Your task to perform on an android device: toggle javascript in the chrome app Image 0: 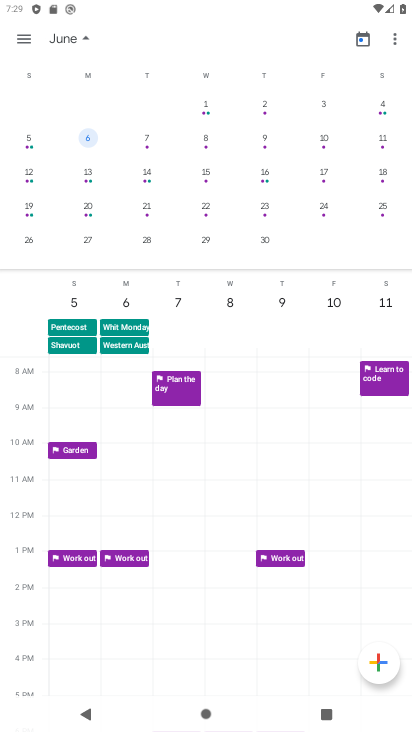
Step 0: press home button
Your task to perform on an android device: toggle javascript in the chrome app Image 1: 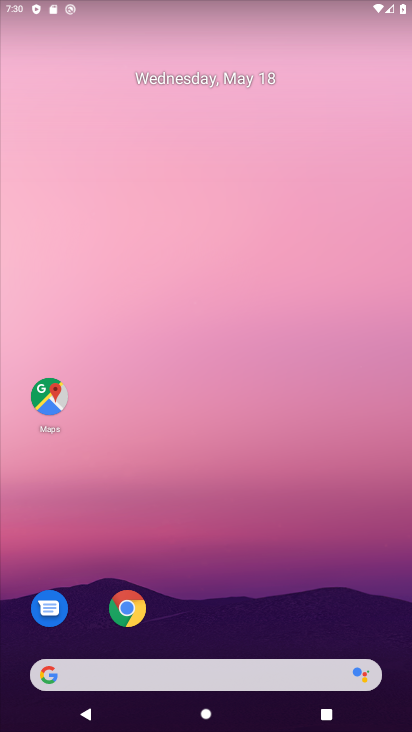
Step 1: click (135, 594)
Your task to perform on an android device: toggle javascript in the chrome app Image 2: 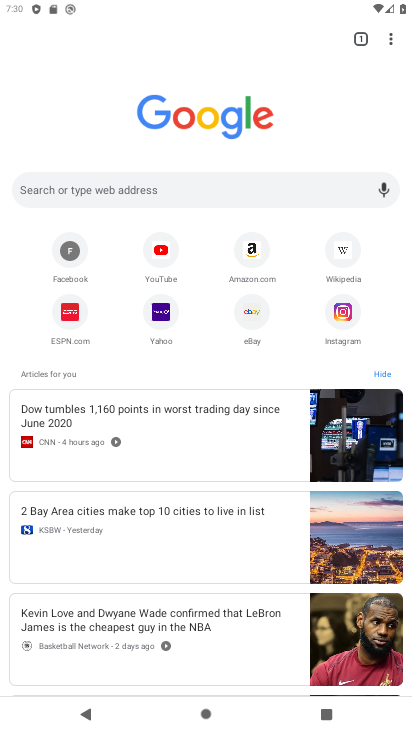
Step 2: click (402, 33)
Your task to perform on an android device: toggle javascript in the chrome app Image 3: 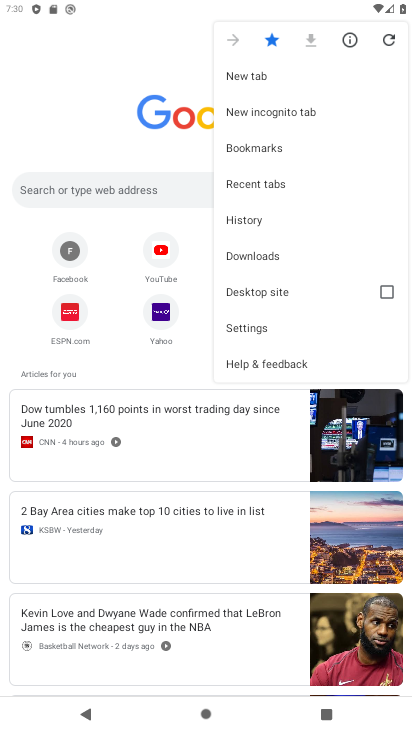
Step 3: click (257, 319)
Your task to perform on an android device: toggle javascript in the chrome app Image 4: 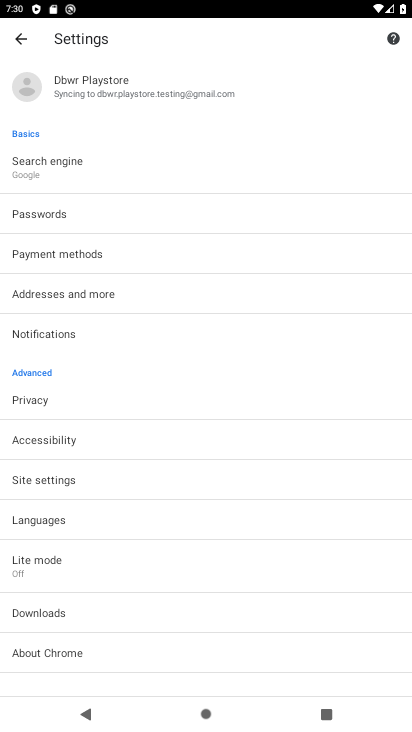
Step 4: click (104, 480)
Your task to perform on an android device: toggle javascript in the chrome app Image 5: 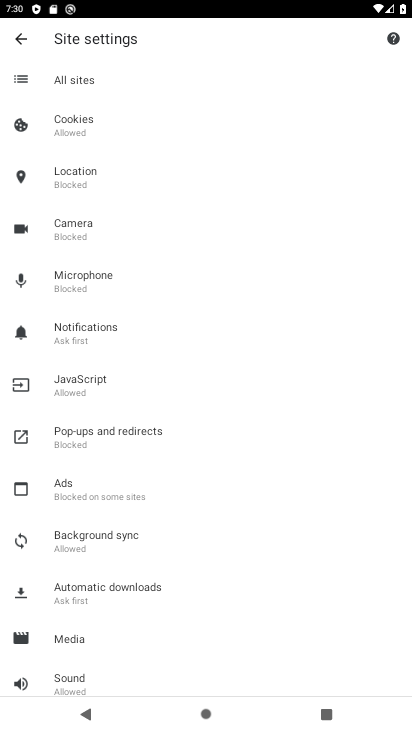
Step 5: click (88, 383)
Your task to perform on an android device: toggle javascript in the chrome app Image 6: 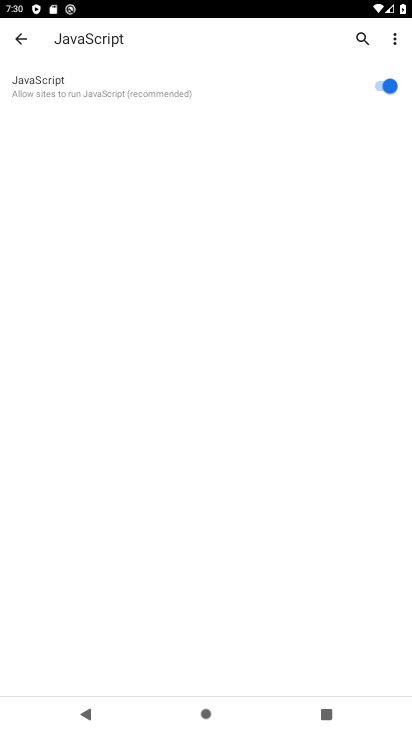
Step 6: click (379, 82)
Your task to perform on an android device: toggle javascript in the chrome app Image 7: 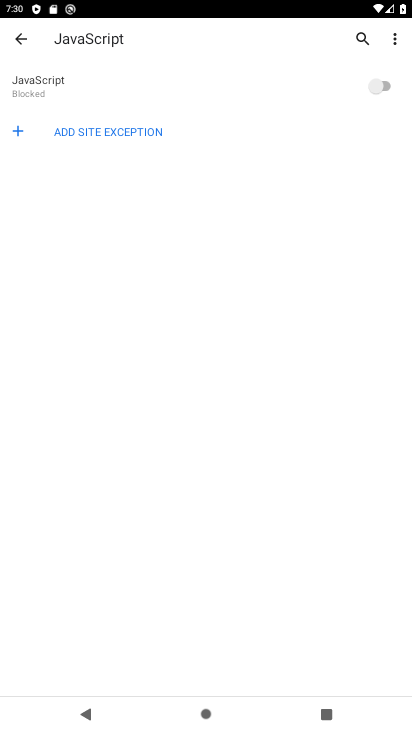
Step 7: task complete